Your task to perform on an android device: What's the weather going to be this weekend? Image 0: 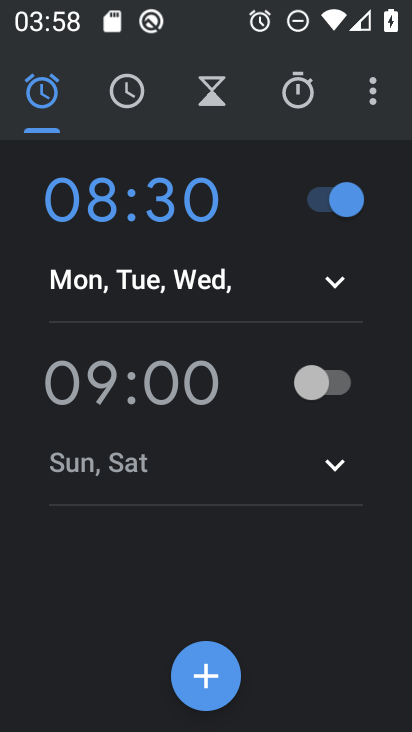
Step 0: press home button
Your task to perform on an android device: What's the weather going to be this weekend? Image 1: 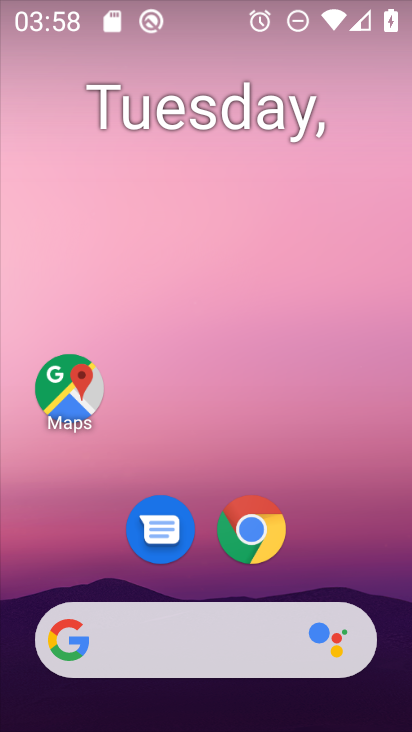
Step 1: drag from (288, 558) to (286, 244)
Your task to perform on an android device: What's the weather going to be this weekend? Image 2: 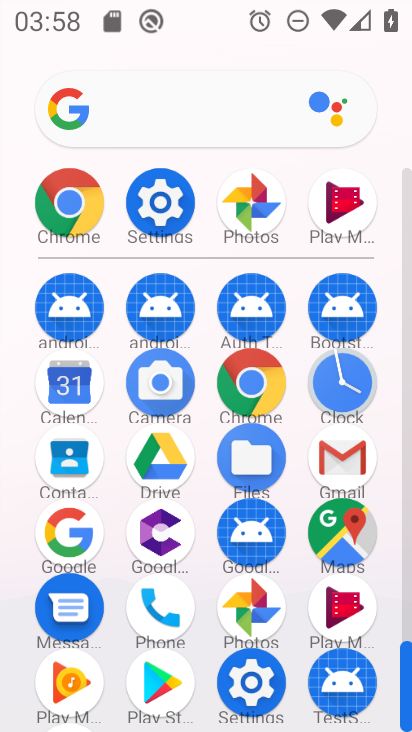
Step 2: click (263, 368)
Your task to perform on an android device: What's the weather going to be this weekend? Image 3: 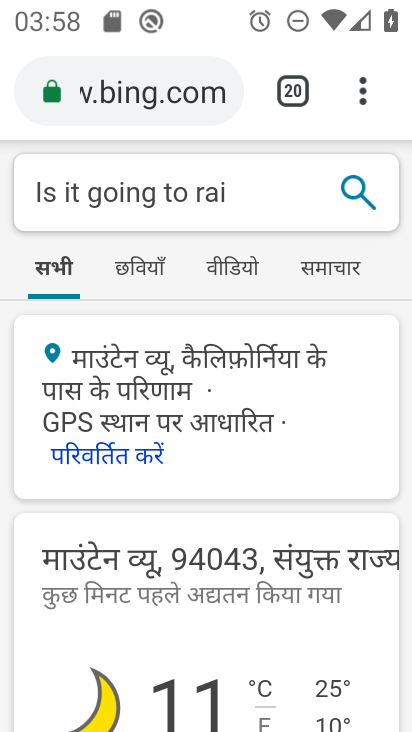
Step 3: click (355, 99)
Your task to perform on an android device: What's the weather going to be this weekend? Image 4: 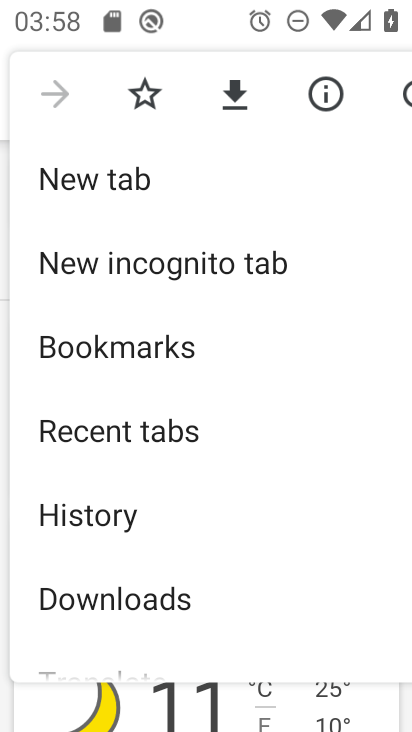
Step 4: click (134, 172)
Your task to perform on an android device: What's the weather going to be this weekend? Image 5: 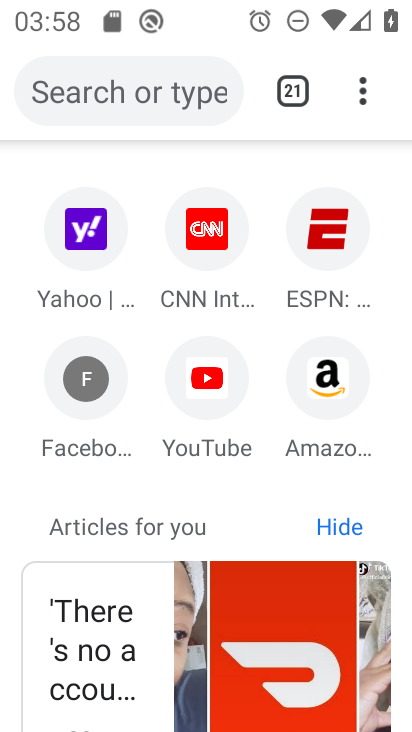
Step 5: click (101, 82)
Your task to perform on an android device: What's the weather going to be this weekend? Image 6: 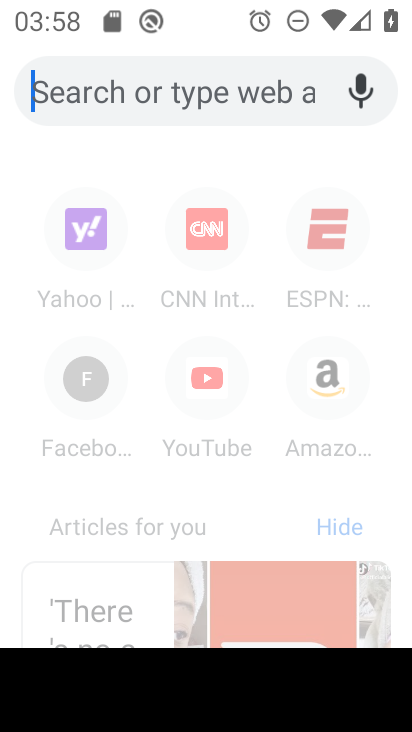
Step 6: type "What's the weather going to be this weekend?"
Your task to perform on an android device: What's the weather going to be this weekend? Image 7: 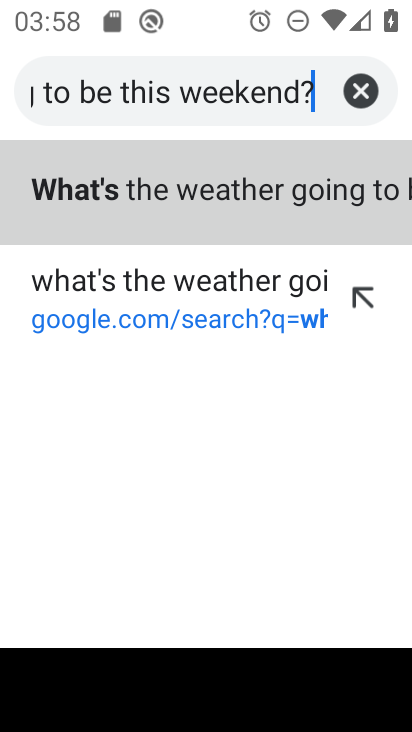
Step 7: click (223, 198)
Your task to perform on an android device: What's the weather going to be this weekend? Image 8: 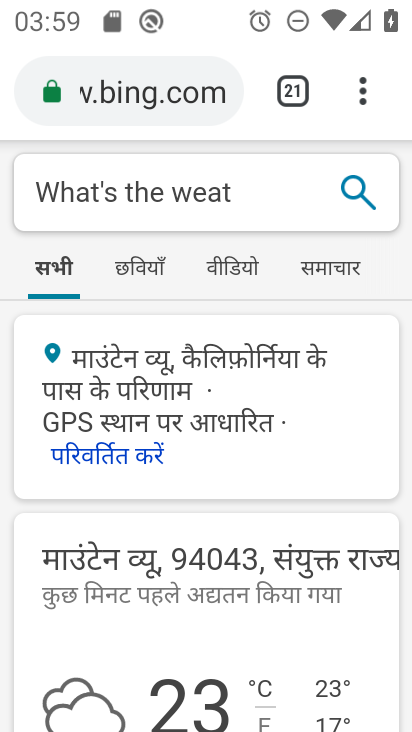
Step 8: task complete